Your task to perform on an android device: Open location settings Image 0: 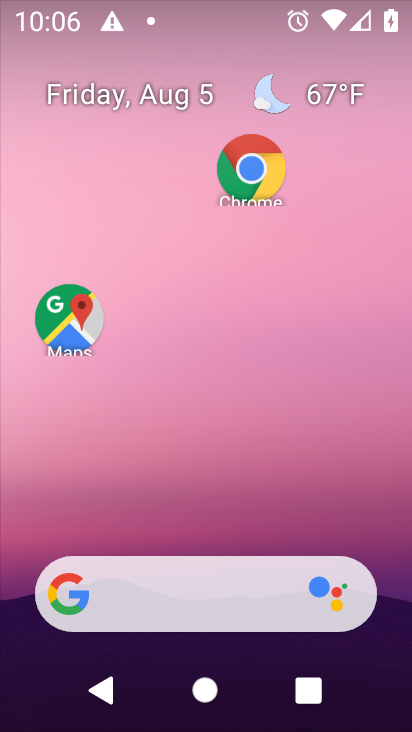
Step 0: drag from (194, 510) to (195, 158)
Your task to perform on an android device: Open location settings Image 1: 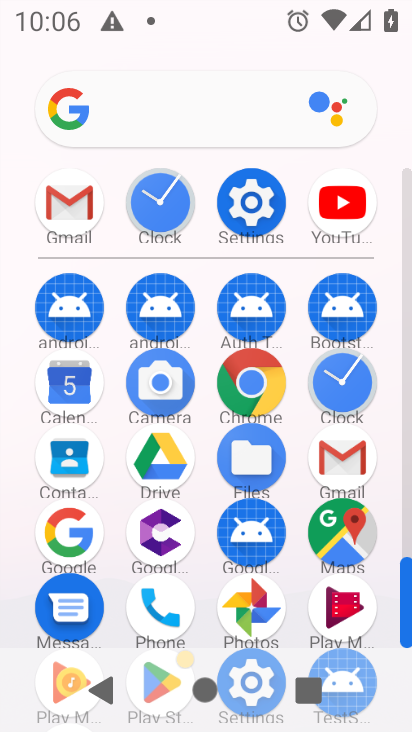
Step 1: click (249, 200)
Your task to perform on an android device: Open location settings Image 2: 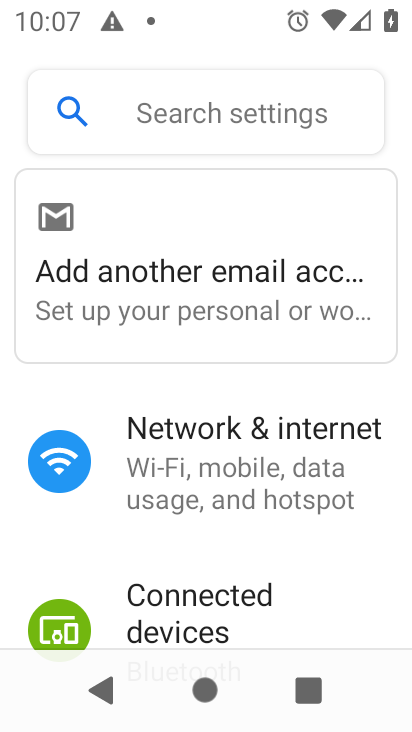
Step 2: drag from (271, 556) to (278, 228)
Your task to perform on an android device: Open location settings Image 3: 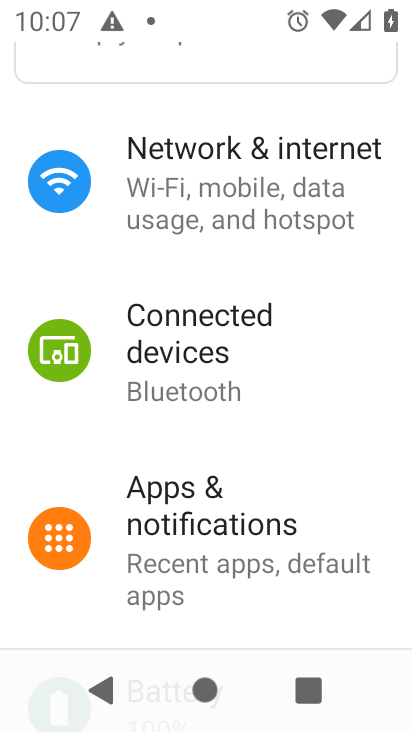
Step 3: drag from (250, 559) to (257, 169)
Your task to perform on an android device: Open location settings Image 4: 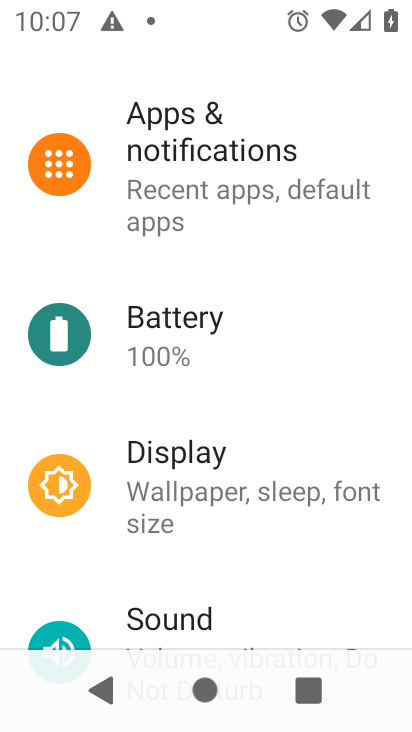
Step 4: drag from (204, 587) to (222, 245)
Your task to perform on an android device: Open location settings Image 5: 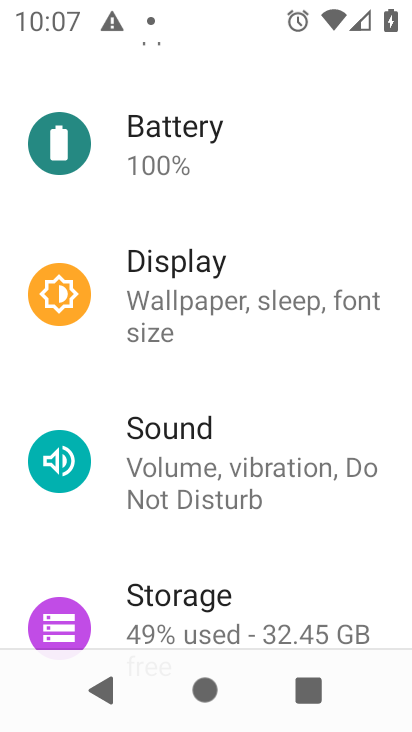
Step 5: drag from (222, 529) to (221, 182)
Your task to perform on an android device: Open location settings Image 6: 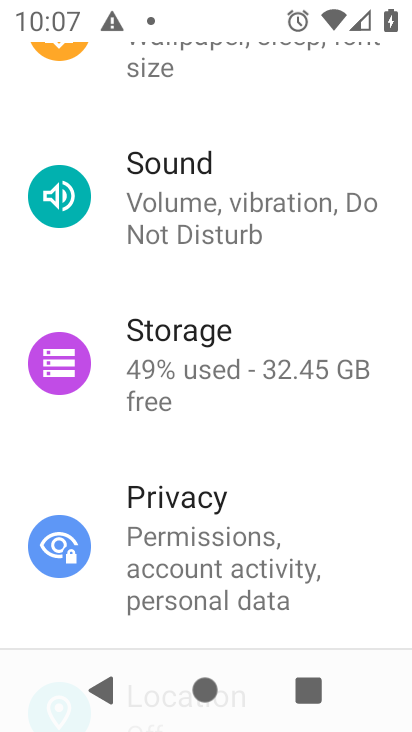
Step 6: drag from (221, 583) to (218, 236)
Your task to perform on an android device: Open location settings Image 7: 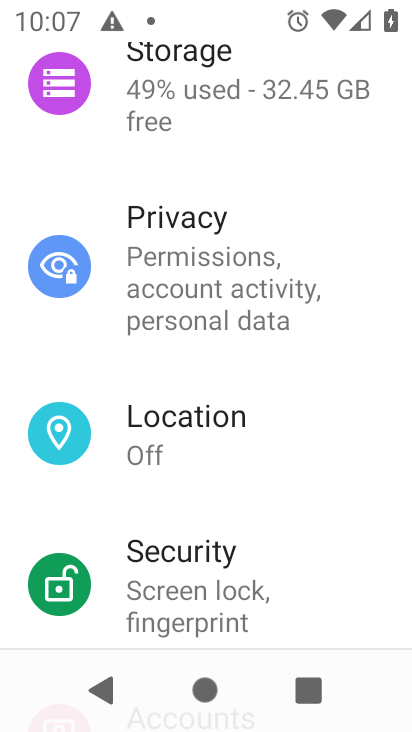
Step 7: click (207, 451)
Your task to perform on an android device: Open location settings Image 8: 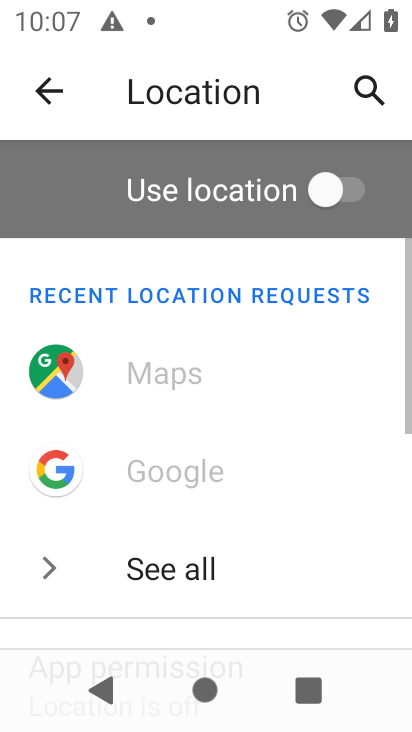
Step 8: task complete